Your task to perform on an android device: Open the calendar app, open the side menu, and click the "Day" option Image 0: 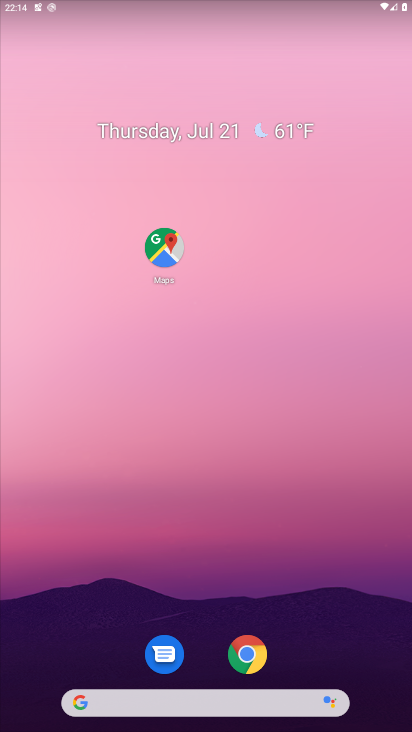
Step 0: drag from (77, 640) to (161, 261)
Your task to perform on an android device: Open the calendar app, open the side menu, and click the "Day" option Image 1: 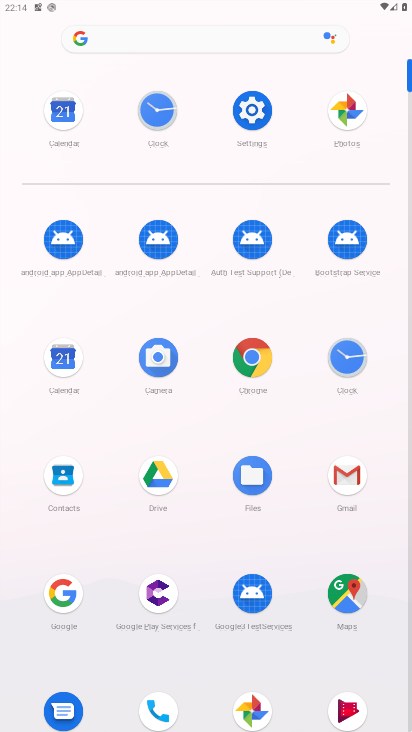
Step 1: click (54, 365)
Your task to perform on an android device: Open the calendar app, open the side menu, and click the "Day" option Image 2: 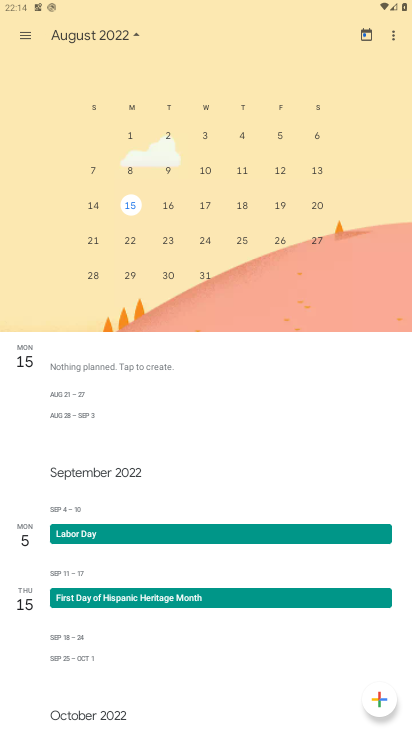
Step 2: click (25, 40)
Your task to perform on an android device: Open the calendar app, open the side menu, and click the "Day" option Image 3: 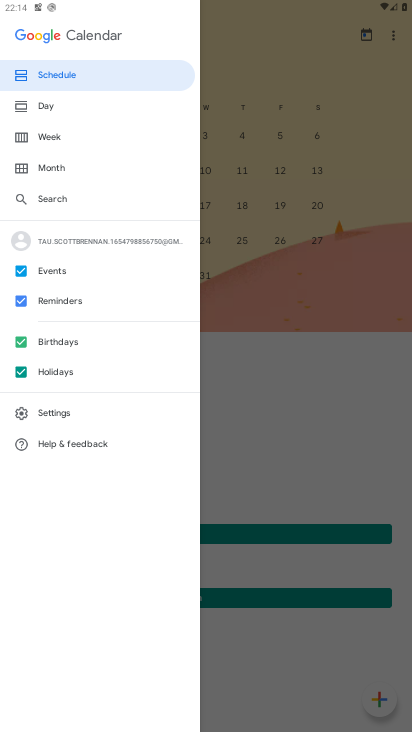
Step 3: click (51, 118)
Your task to perform on an android device: Open the calendar app, open the side menu, and click the "Day" option Image 4: 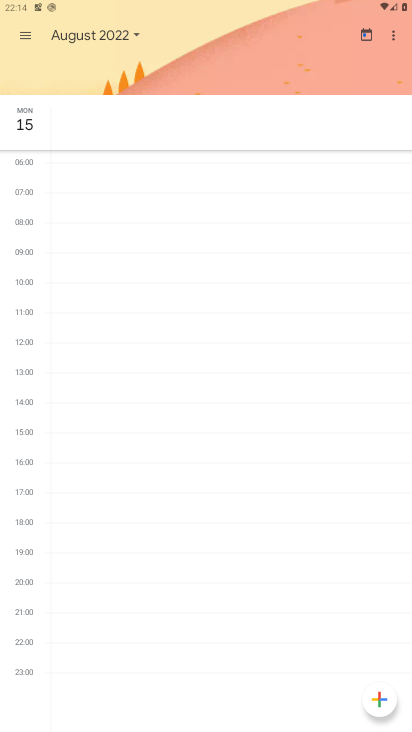
Step 4: task complete